Your task to perform on an android device: change keyboard looks Image 0: 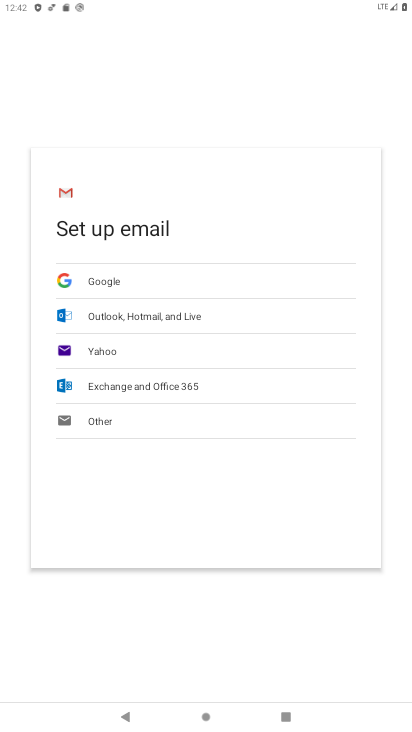
Step 0: press home button
Your task to perform on an android device: change keyboard looks Image 1: 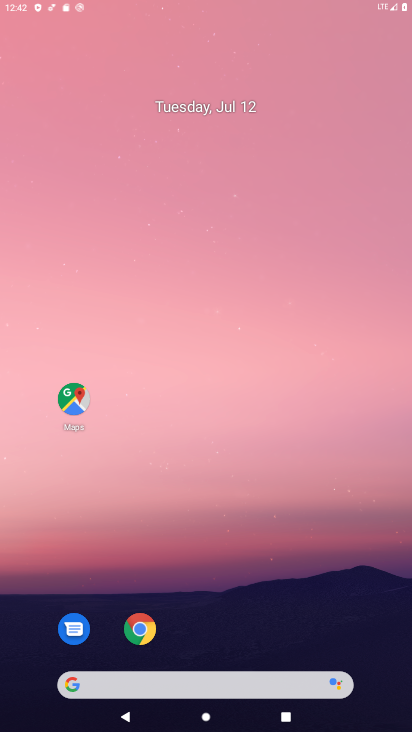
Step 1: drag from (205, 685) to (310, 58)
Your task to perform on an android device: change keyboard looks Image 2: 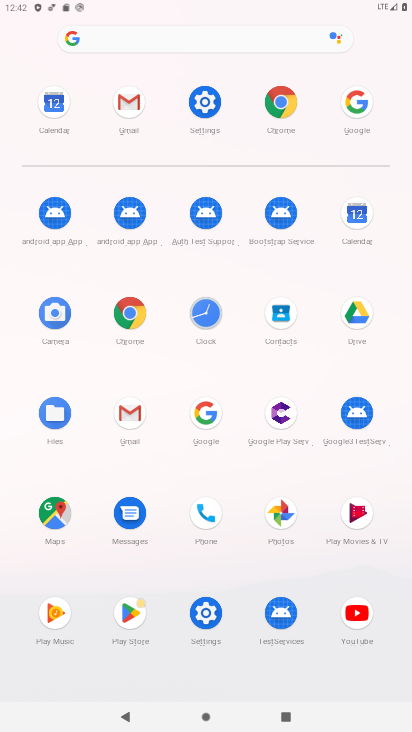
Step 2: click (212, 94)
Your task to perform on an android device: change keyboard looks Image 3: 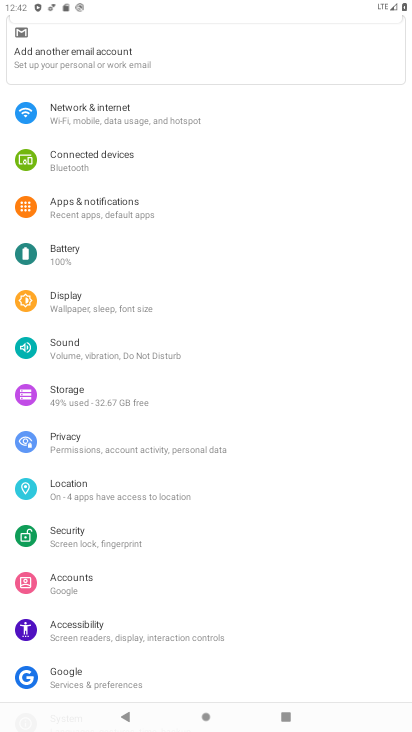
Step 3: drag from (122, 676) to (154, 243)
Your task to perform on an android device: change keyboard looks Image 4: 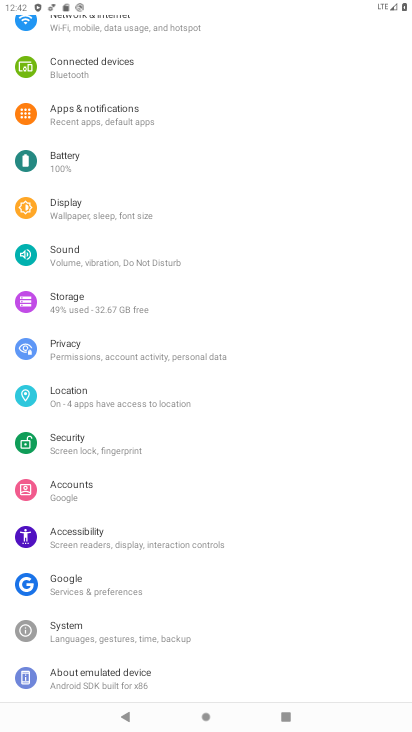
Step 4: click (77, 631)
Your task to perform on an android device: change keyboard looks Image 5: 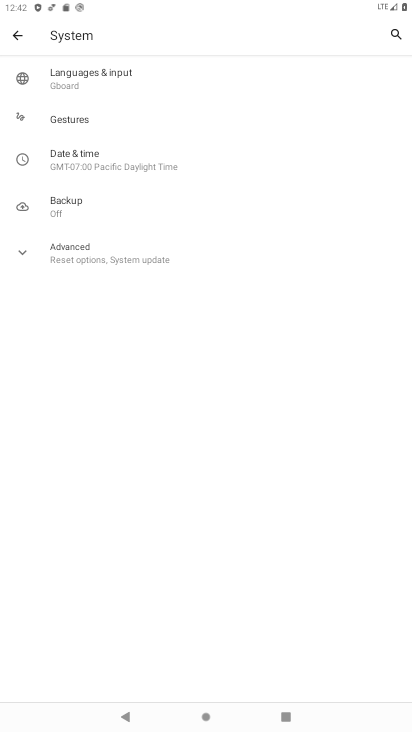
Step 5: click (98, 80)
Your task to perform on an android device: change keyboard looks Image 6: 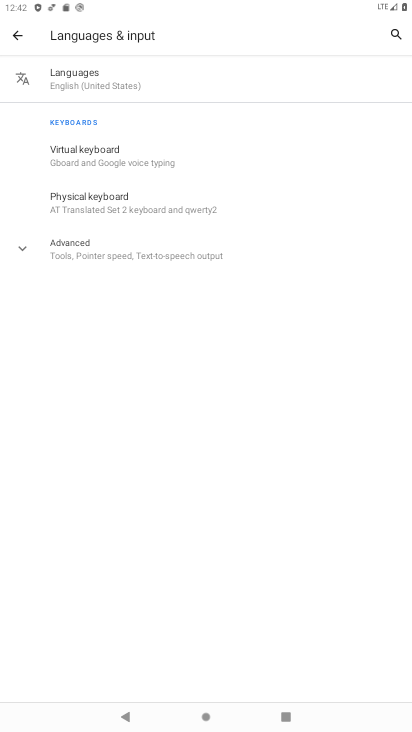
Step 6: click (146, 157)
Your task to perform on an android device: change keyboard looks Image 7: 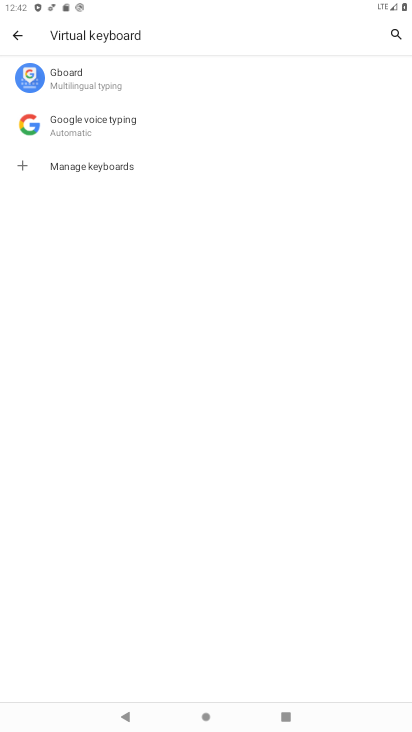
Step 7: click (102, 81)
Your task to perform on an android device: change keyboard looks Image 8: 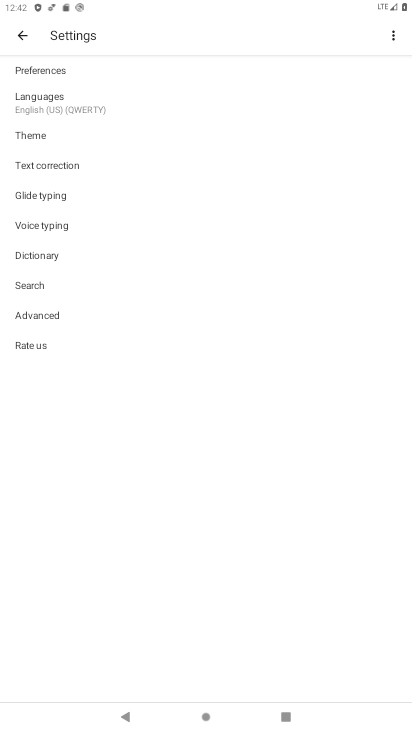
Step 8: click (60, 133)
Your task to perform on an android device: change keyboard looks Image 9: 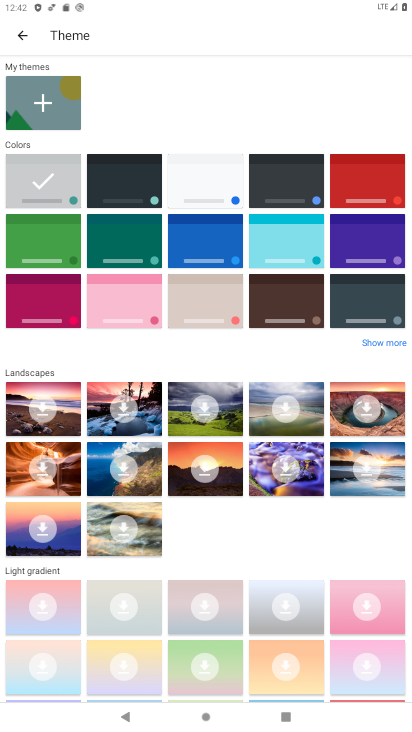
Step 9: click (194, 244)
Your task to perform on an android device: change keyboard looks Image 10: 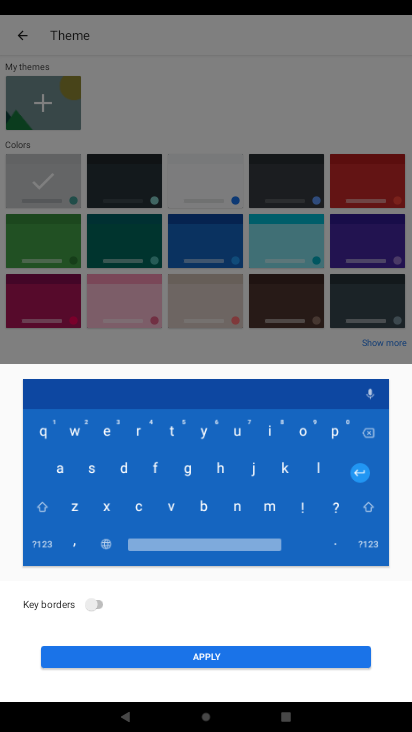
Step 10: click (213, 650)
Your task to perform on an android device: change keyboard looks Image 11: 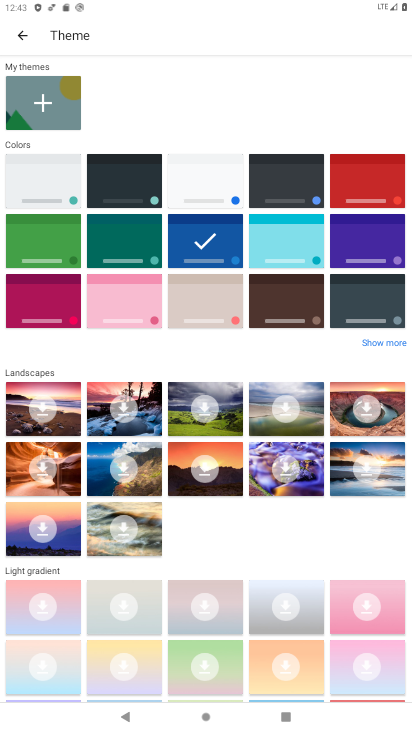
Step 11: task complete